Your task to perform on an android device: toggle pop-ups in chrome Image 0: 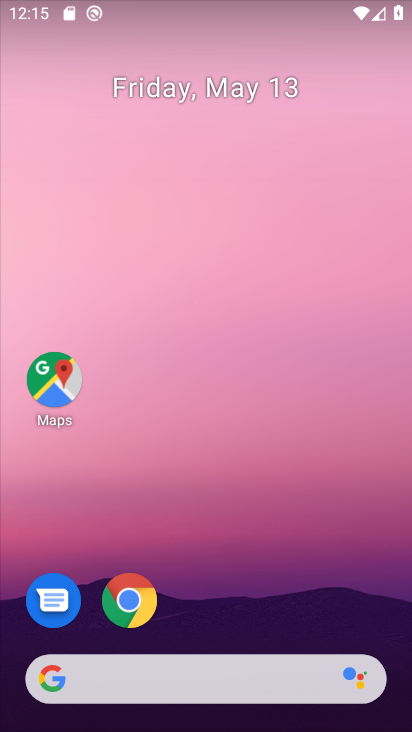
Step 0: click (149, 605)
Your task to perform on an android device: toggle pop-ups in chrome Image 1: 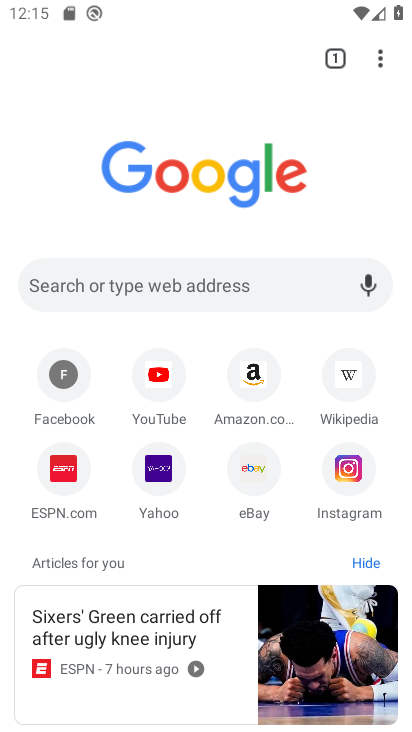
Step 1: drag from (393, 71) to (255, 506)
Your task to perform on an android device: toggle pop-ups in chrome Image 2: 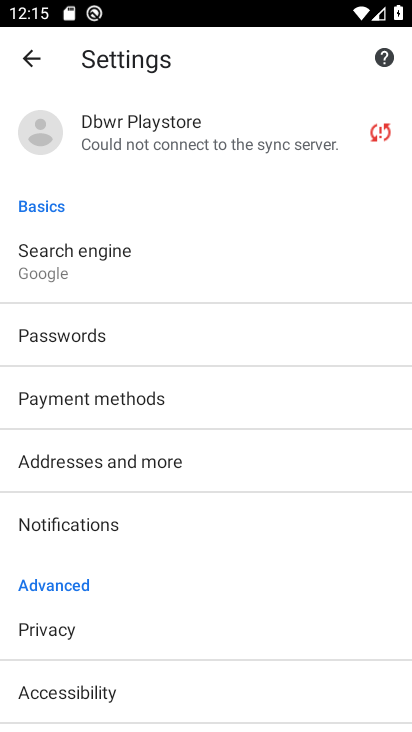
Step 2: drag from (202, 654) to (275, 338)
Your task to perform on an android device: toggle pop-ups in chrome Image 3: 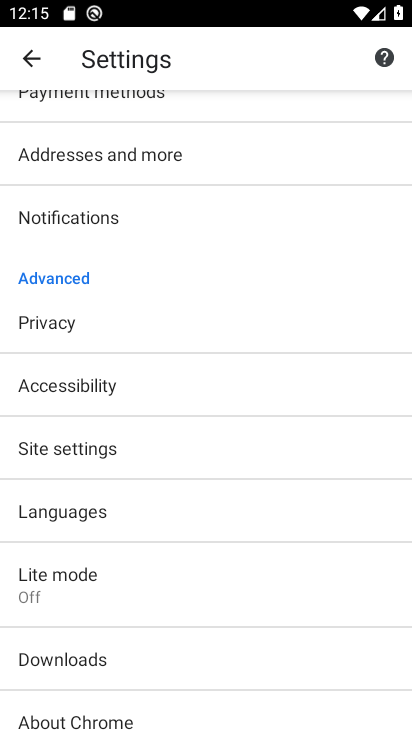
Step 3: click (158, 456)
Your task to perform on an android device: toggle pop-ups in chrome Image 4: 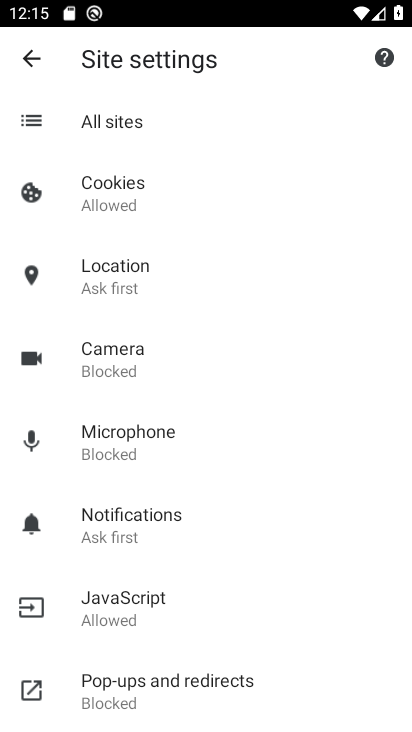
Step 4: click (170, 682)
Your task to perform on an android device: toggle pop-ups in chrome Image 5: 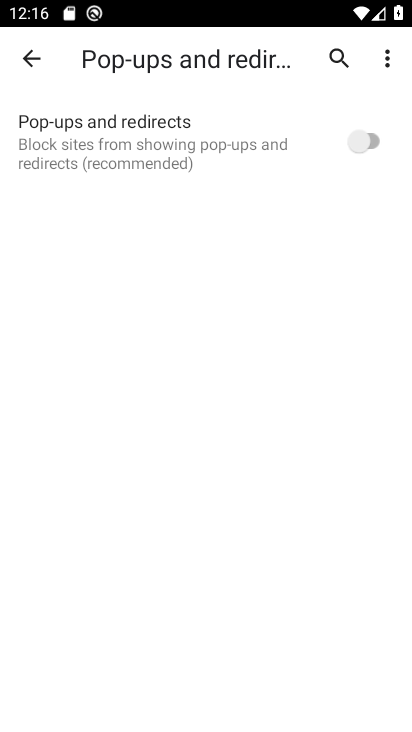
Step 5: click (379, 143)
Your task to perform on an android device: toggle pop-ups in chrome Image 6: 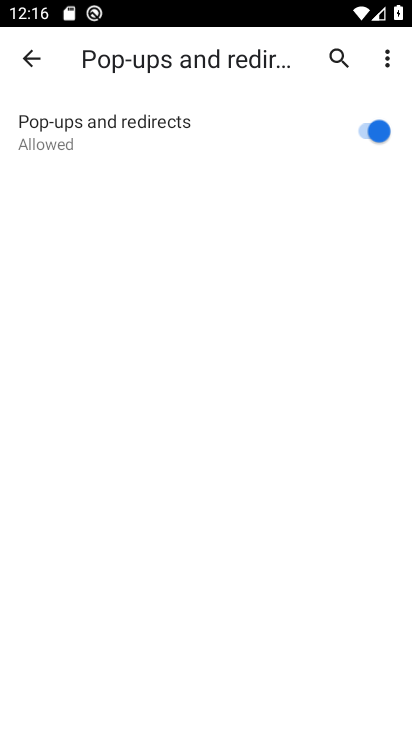
Step 6: task complete